Your task to perform on an android device: toggle sleep mode Image 0: 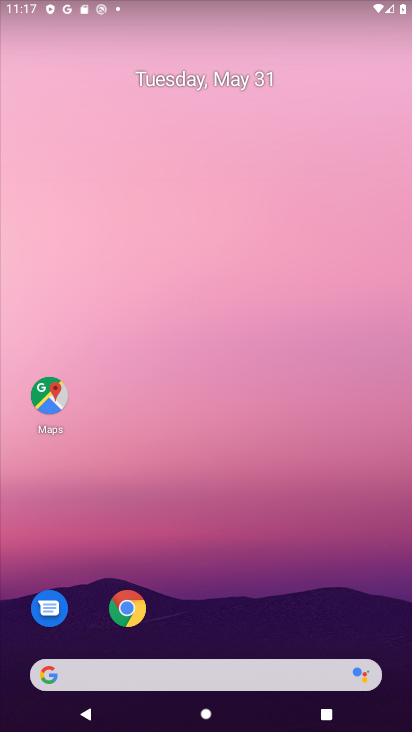
Step 0: drag from (216, 612) to (313, 0)
Your task to perform on an android device: toggle sleep mode Image 1: 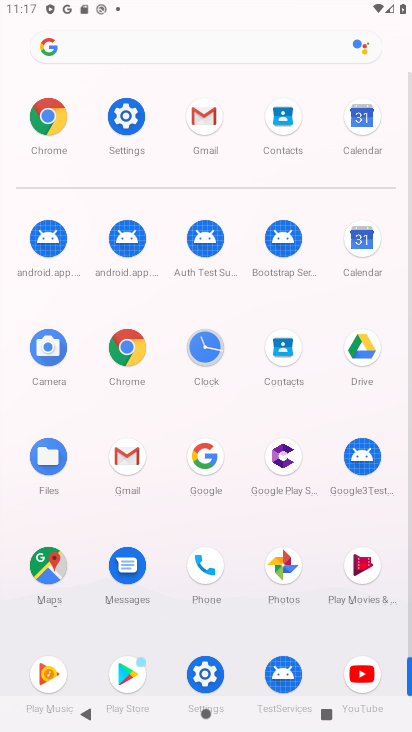
Step 1: click (117, 114)
Your task to perform on an android device: toggle sleep mode Image 2: 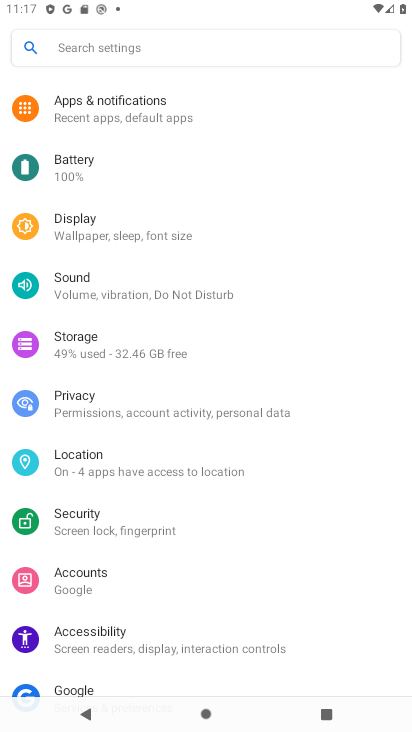
Step 2: click (89, 232)
Your task to perform on an android device: toggle sleep mode Image 3: 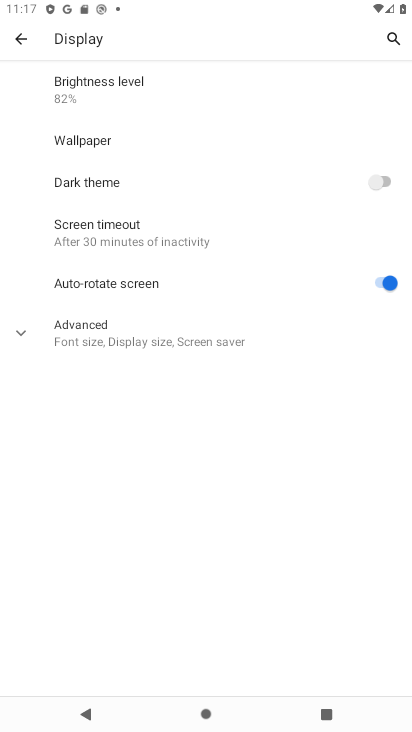
Step 3: task complete